Your task to perform on an android device: Open wifi settings Image 0: 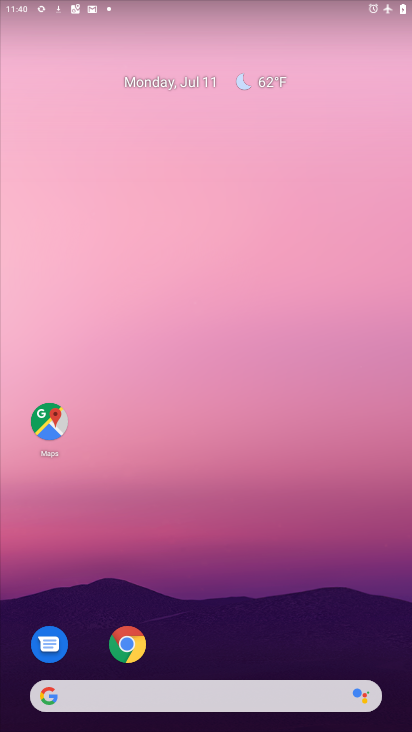
Step 0: drag from (236, 662) to (151, 28)
Your task to perform on an android device: Open wifi settings Image 1: 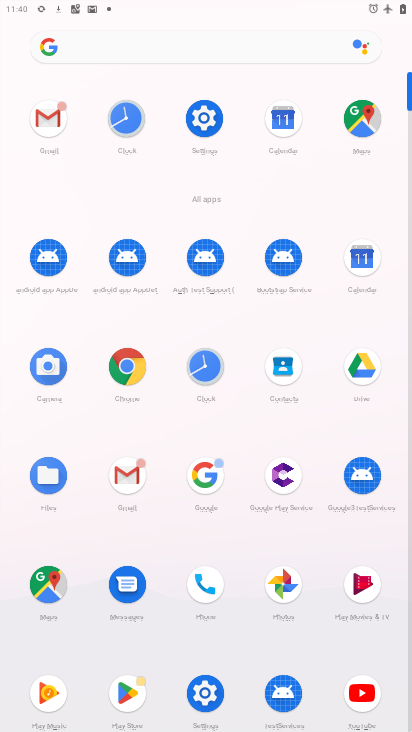
Step 1: click (221, 133)
Your task to perform on an android device: Open wifi settings Image 2: 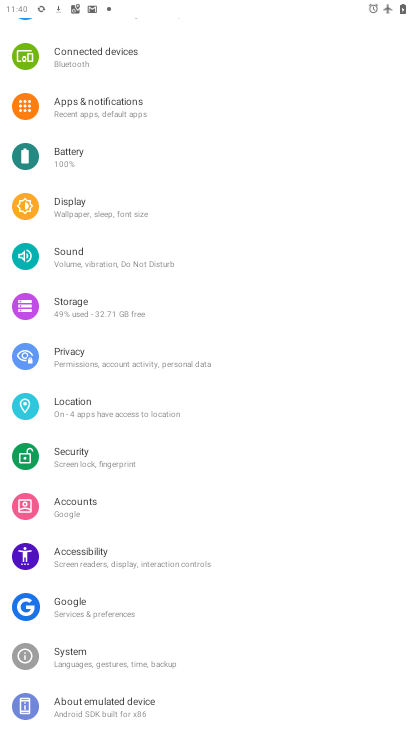
Step 2: drag from (234, 146) to (219, 556)
Your task to perform on an android device: Open wifi settings Image 3: 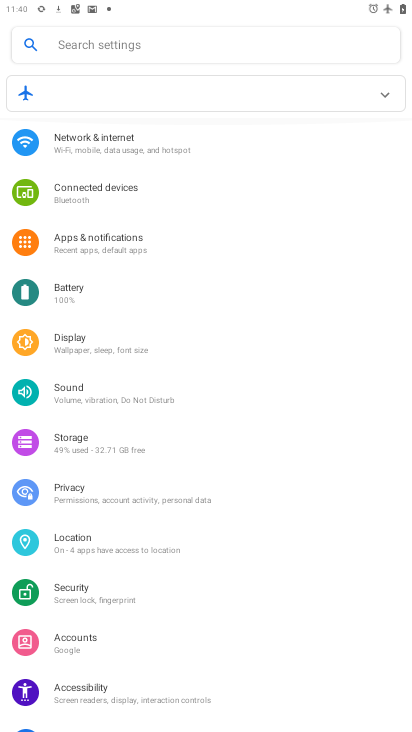
Step 3: click (84, 141)
Your task to perform on an android device: Open wifi settings Image 4: 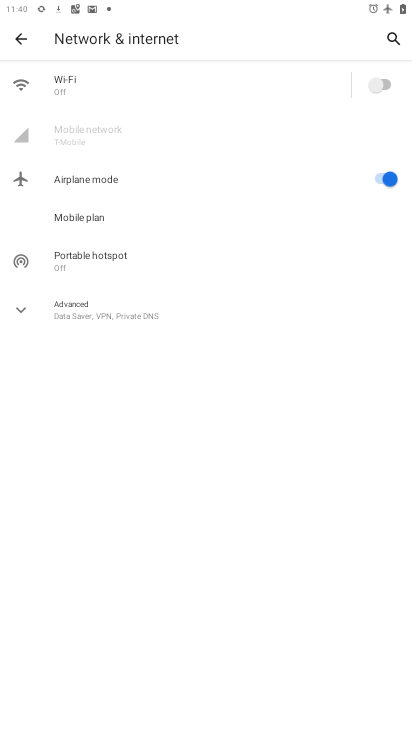
Step 4: click (60, 56)
Your task to perform on an android device: Open wifi settings Image 5: 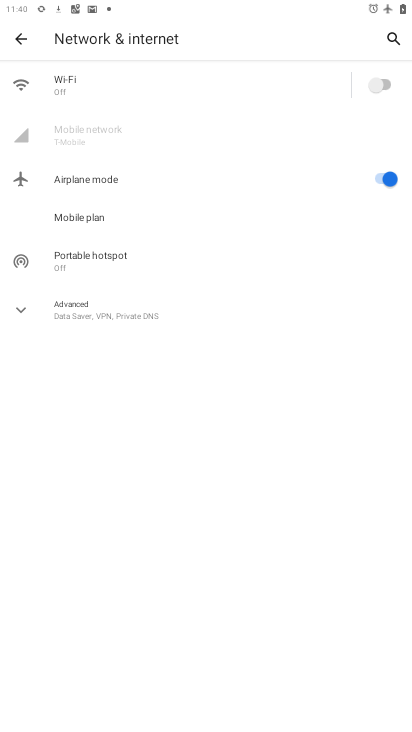
Step 5: click (75, 78)
Your task to perform on an android device: Open wifi settings Image 6: 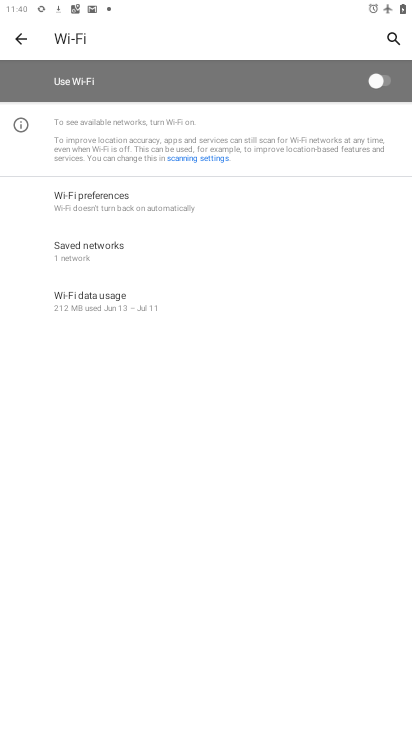
Step 6: task complete